Your task to perform on an android device: Go to Amazon Image 0: 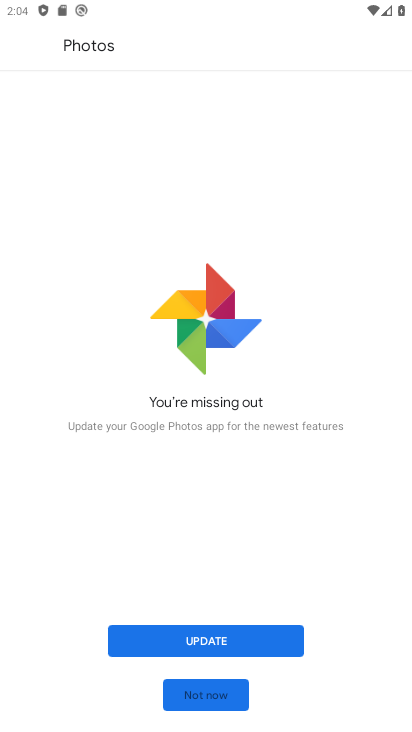
Step 0: press home button
Your task to perform on an android device: Go to Amazon Image 1: 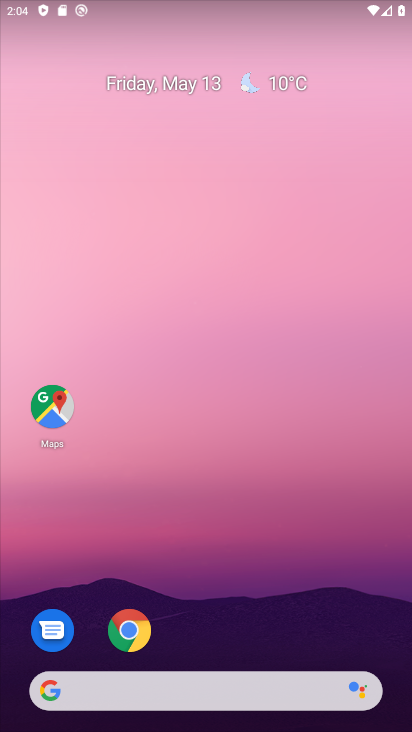
Step 1: drag from (200, 649) to (226, 77)
Your task to perform on an android device: Go to Amazon Image 2: 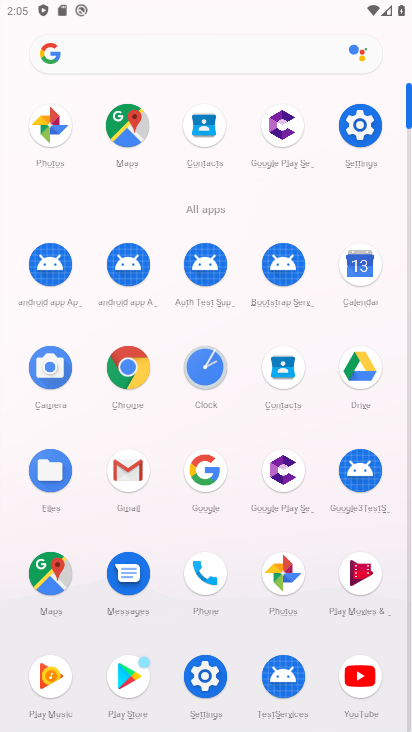
Step 2: click (125, 360)
Your task to perform on an android device: Go to Amazon Image 3: 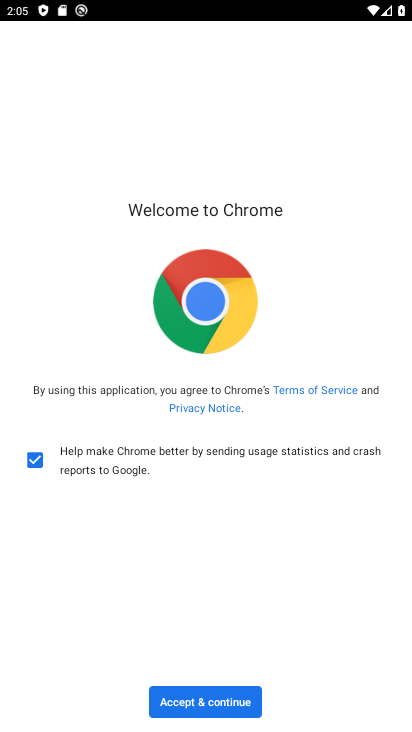
Step 3: click (201, 695)
Your task to perform on an android device: Go to Amazon Image 4: 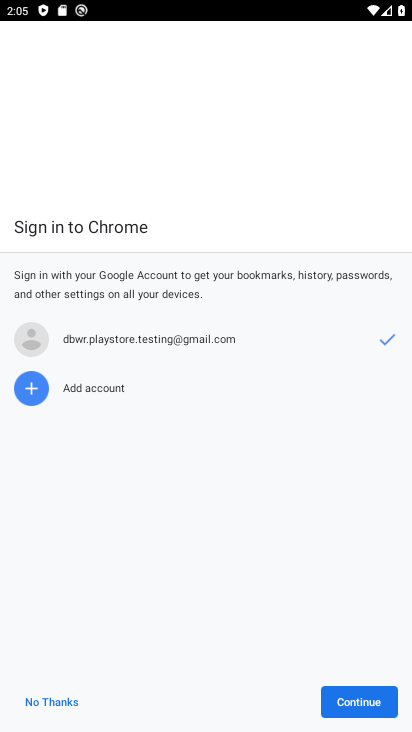
Step 4: click (358, 696)
Your task to perform on an android device: Go to Amazon Image 5: 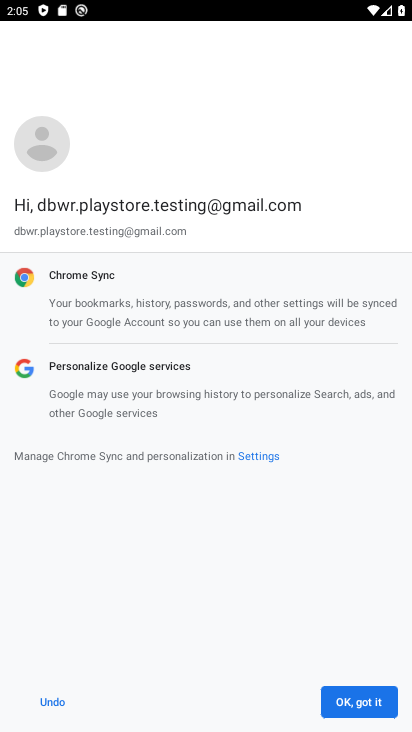
Step 5: click (358, 696)
Your task to perform on an android device: Go to Amazon Image 6: 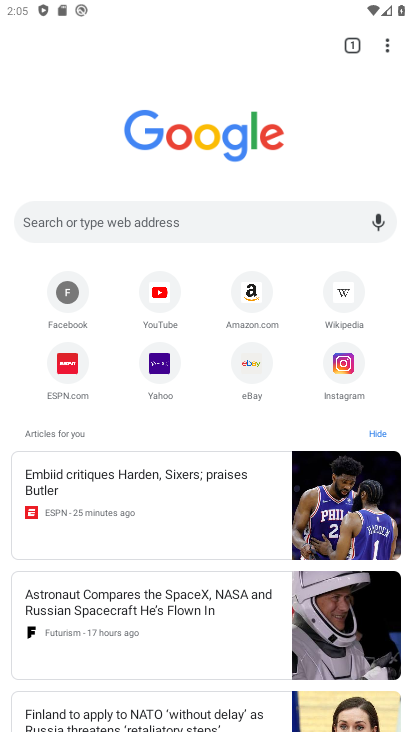
Step 6: click (252, 288)
Your task to perform on an android device: Go to Amazon Image 7: 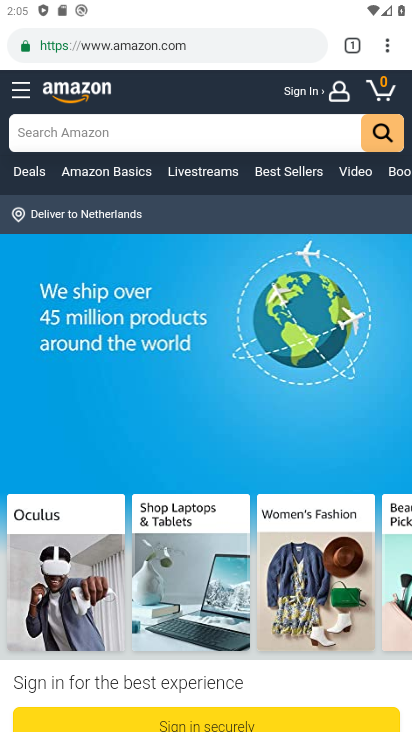
Step 7: task complete